Your task to perform on an android device: empty trash in google photos Image 0: 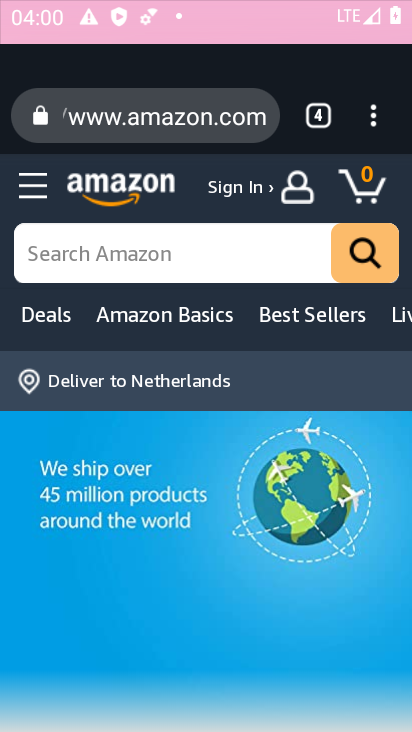
Step 0: drag from (272, 406) to (287, 157)
Your task to perform on an android device: empty trash in google photos Image 1: 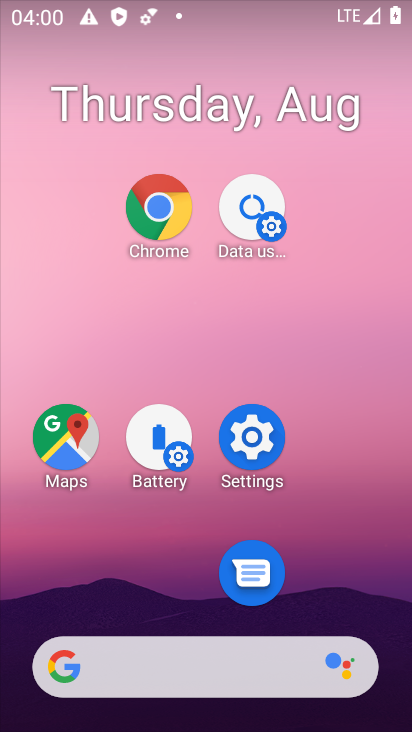
Step 1: drag from (252, 613) to (231, 108)
Your task to perform on an android device: empty trash in google photos Image 2: 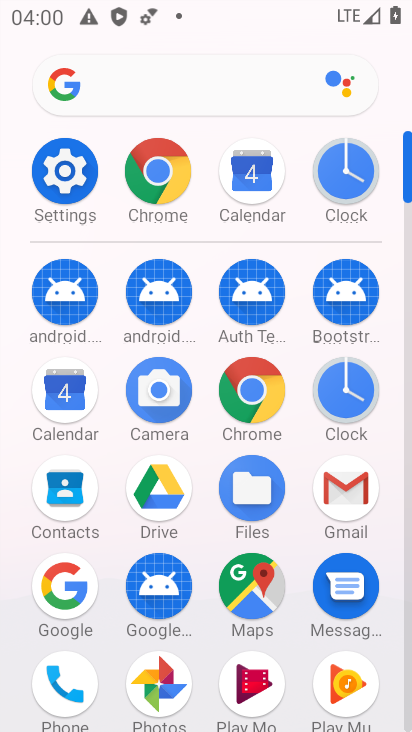
Step 2: click (169, 678)
Your task to perform on an android device: empty trash in google photos Image 3: 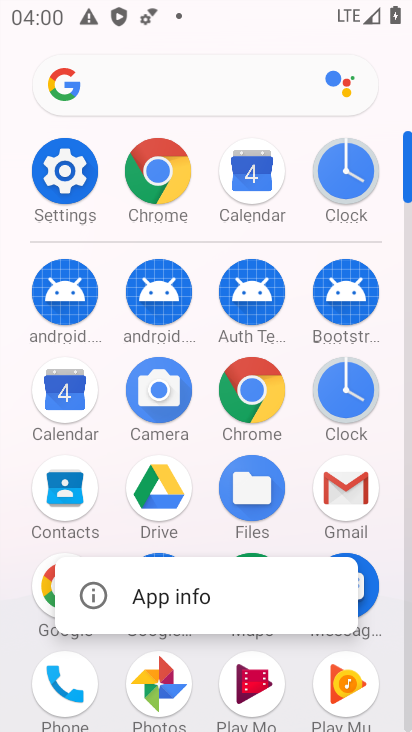
Step 3: click (166, 677)
Your task to perform on an android device: empty trash in google photos Image 4: 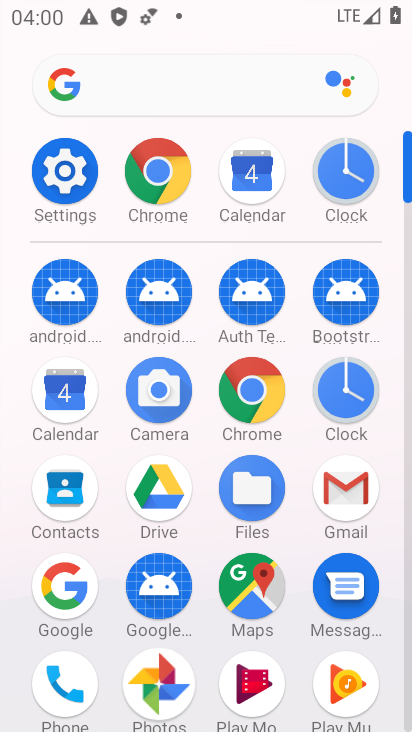
Step 4: click (166, 677)
Your task to perform on an android device: empty trash in google photos Image 5: 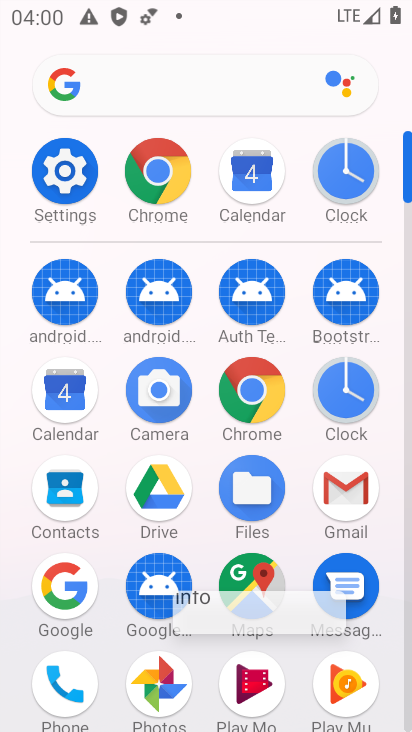
Step 5: click (166, 677)
Your task to perform on an android device: empty trash in google photos Image 6: 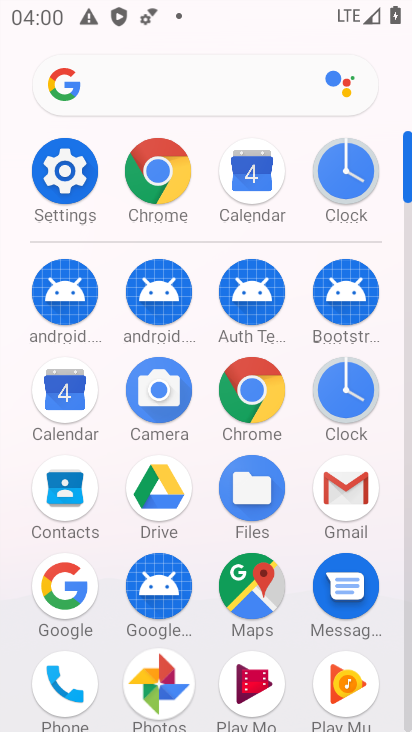
Step 6: click (166, 677)
Your task to perform on an android device: empty trash in google photos Image 7: 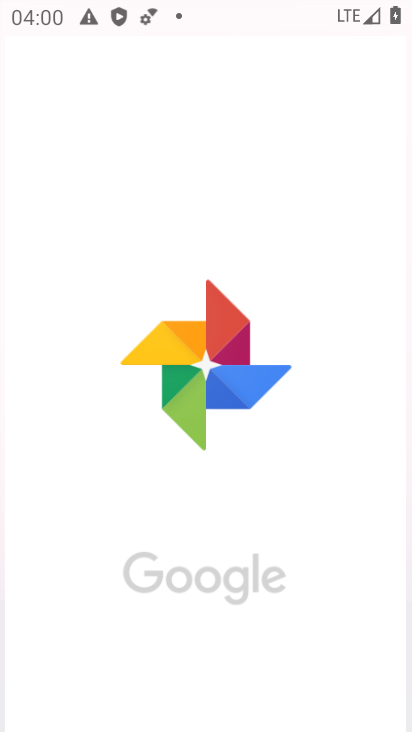
Step 7: click (164, 677)
Your task to perform on an android device: empty trash in google photos Image 8: 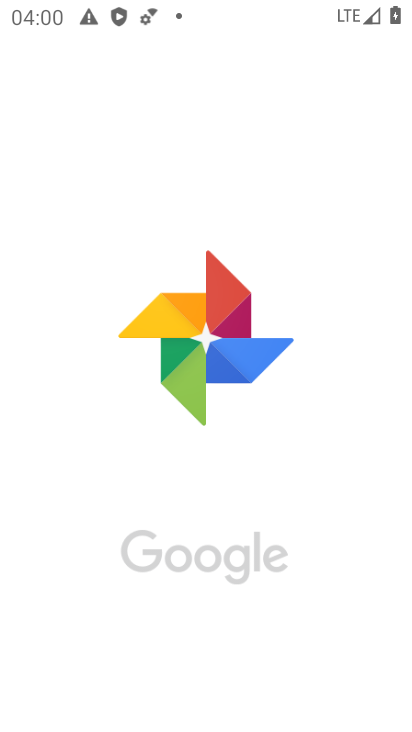
Step 8: click (154, 668)
Your task to perform on an android device: empty trash in google photos Image 9: 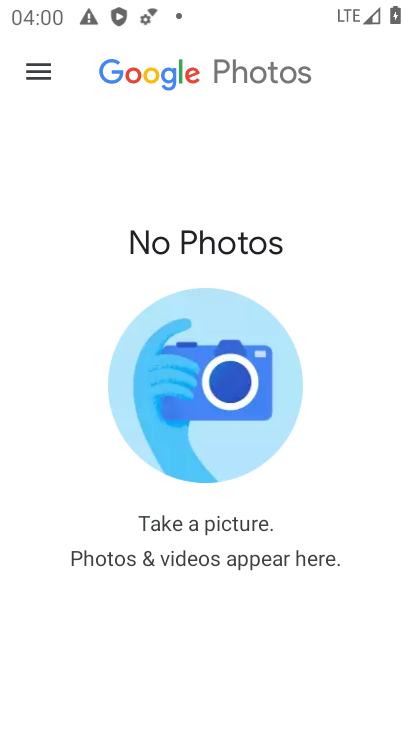
Step 9: drag from (34, 61) to (112, 365)
Your task to perform on an android device: empty trash in google photos Image 10: 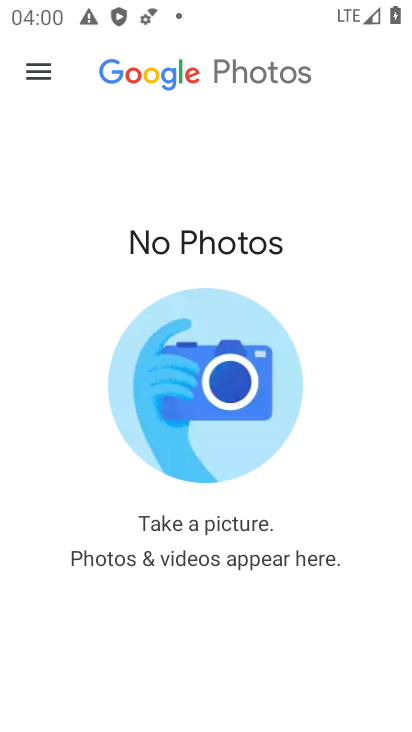
Step 10: click (39, 74)
Your task to perform on an android device: empty trash in google photos Image 11: 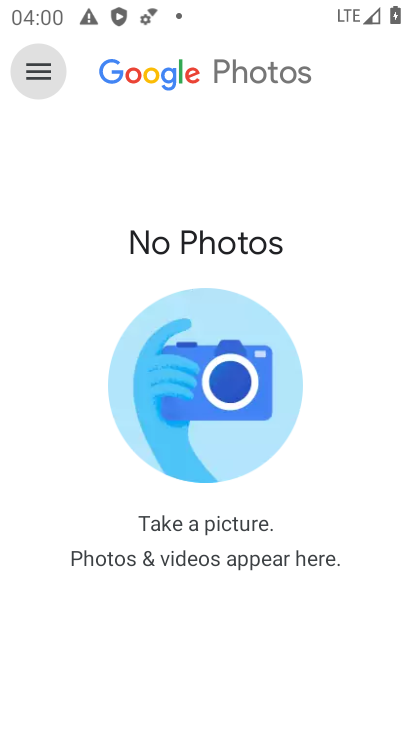
Step 11: click (39, 74)
Your task to perform on an android device: empty trash in google photos Image 12: 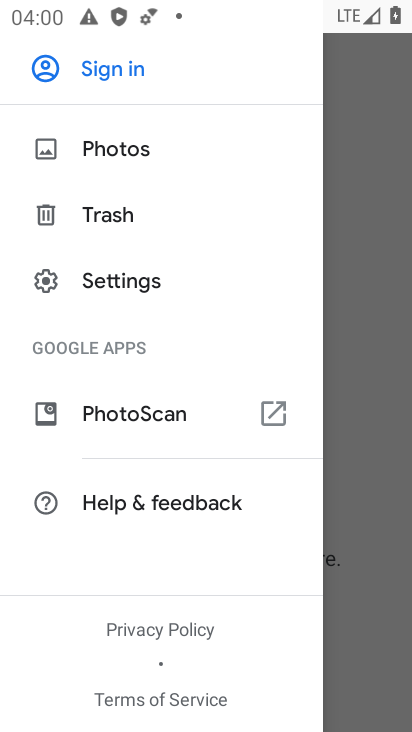
Step 12: click (39, 74)
Your task to perform on an android device: empty trash in google photos Image 13: 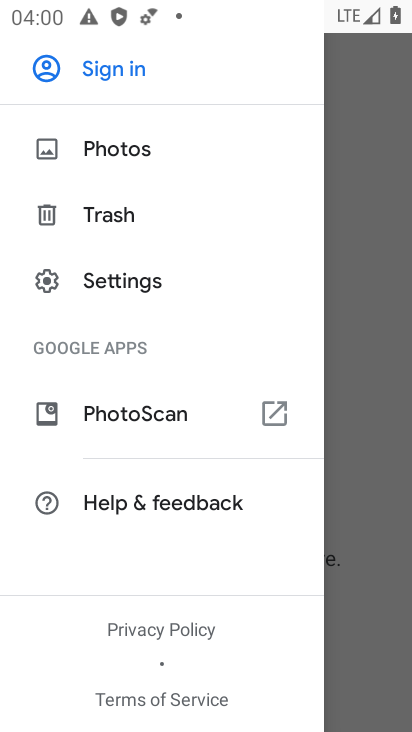
Step 13: click (39, 74)
Your task to perform on an android device: empty trash in google photos Image 14: 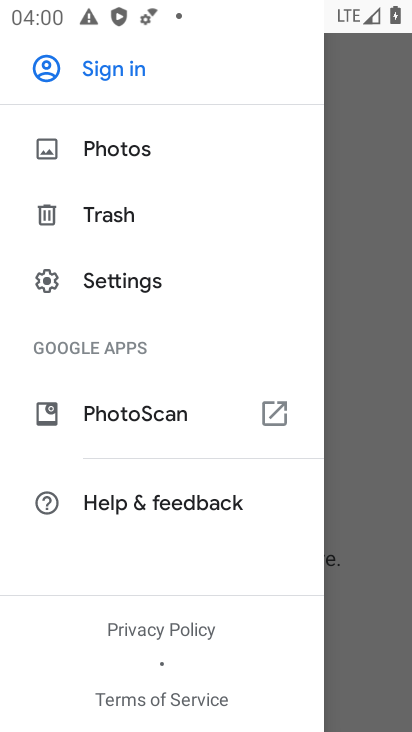
Step 14: click (105, 203)
Your task to perform on an android device: empty trash in google photos Image 15: 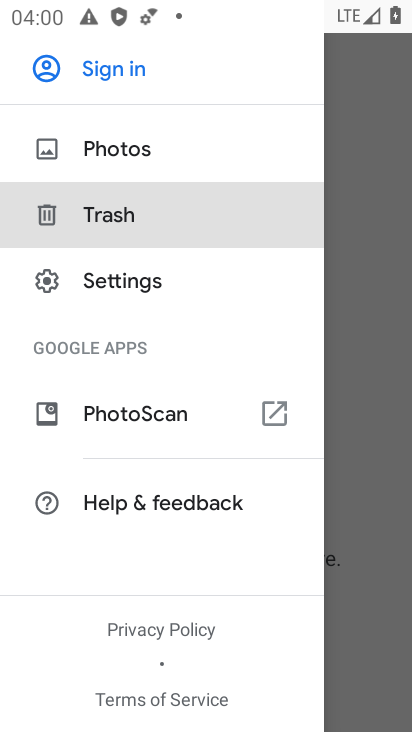
Step 15: click (109, 205)
Your task to perform on an android device: empty trash in google photos Image 16: 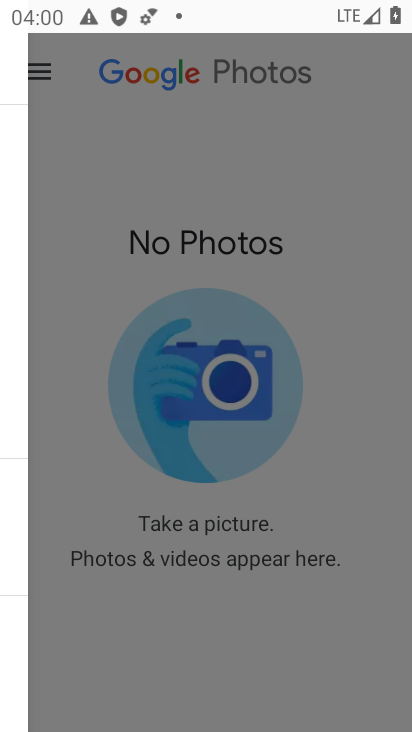
Step 16: click (110, 206)
Your task to perform on an android device: empty trash in google photos Image 17: 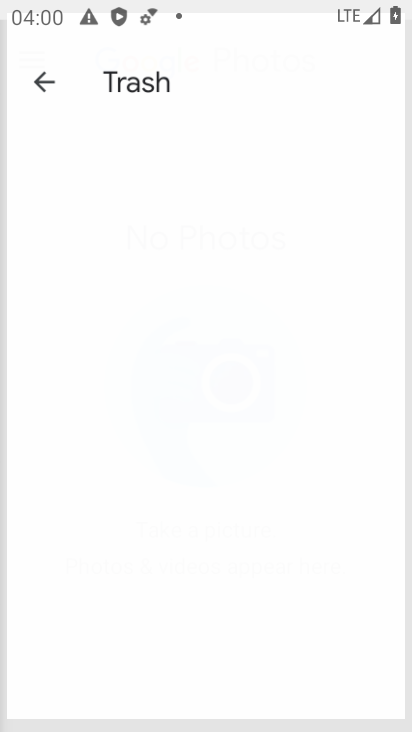
Step 17: click (111, 206)
Your task to perform on an android device: empty trash in google photos Image 18: 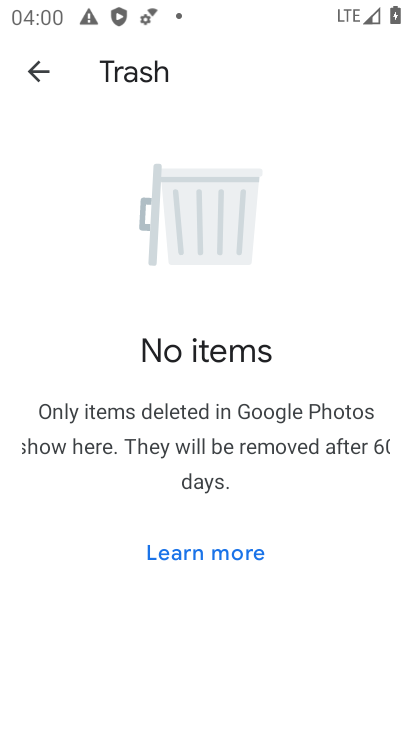
Step 18: task complete